Your task to perform on an android device: Search for Mexican restaurants on Maps Image 0: 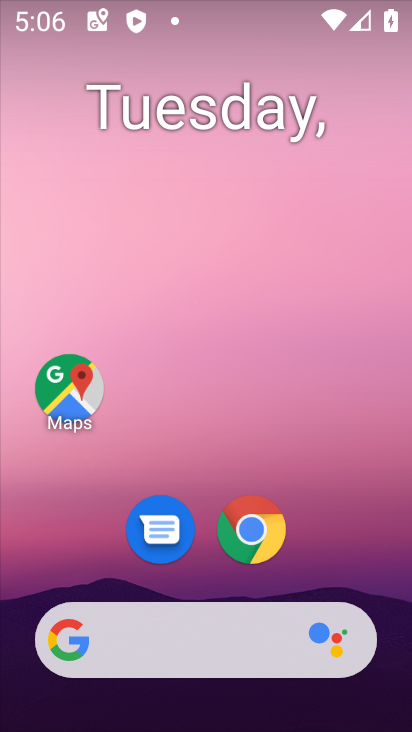
Step 0: click (262, 518)
Your task to perform on an android device: Search for Mexican restaurants on Maps Image 1: 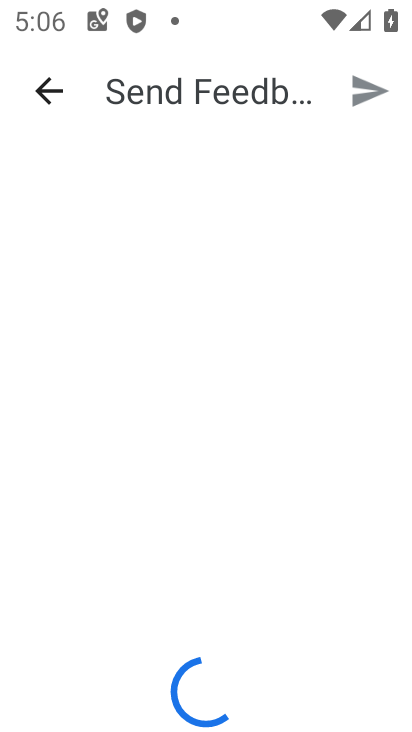
Step 1: press home button
Your task to perform on an android device: Search for Mexican restaurants on Maps Image 2: 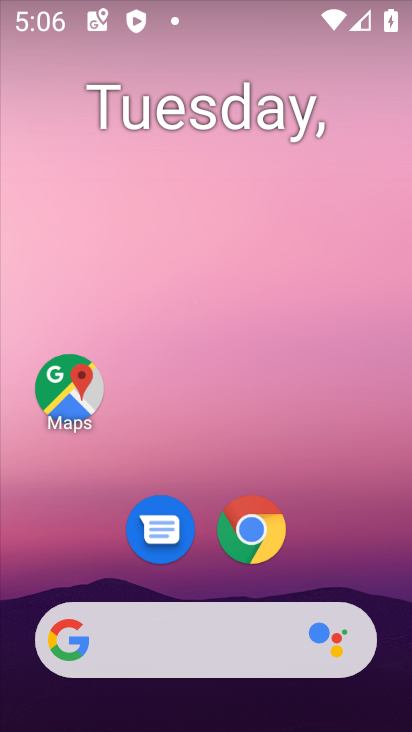
Step 2: drag from (405, 346) to (409, 124)
Your task to perform on an android device: Search for Mexican restaurants on Maps Image 3: 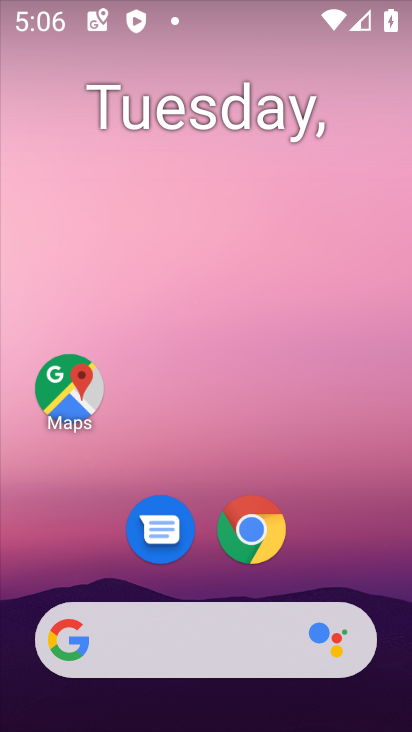
Step 3: drag from (386, 599) to (375, 116)
Your task to perform on an android device: Search for Mexican restaurants on Maps Image 4: 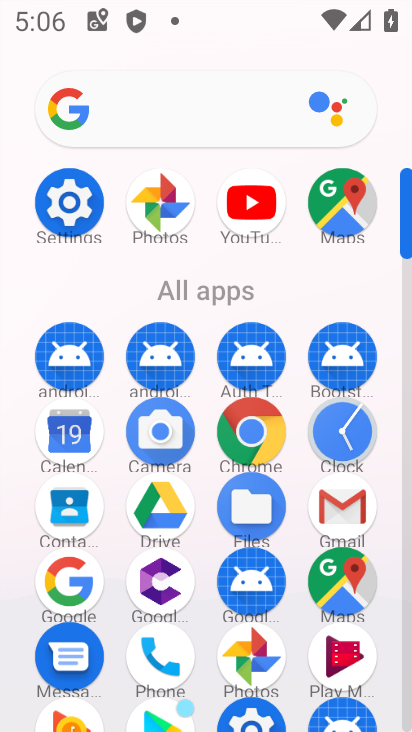
Step 4: click (346, 578)
Your task to perform on an android device: Search for Mexican restaurants on Maps Image 5: 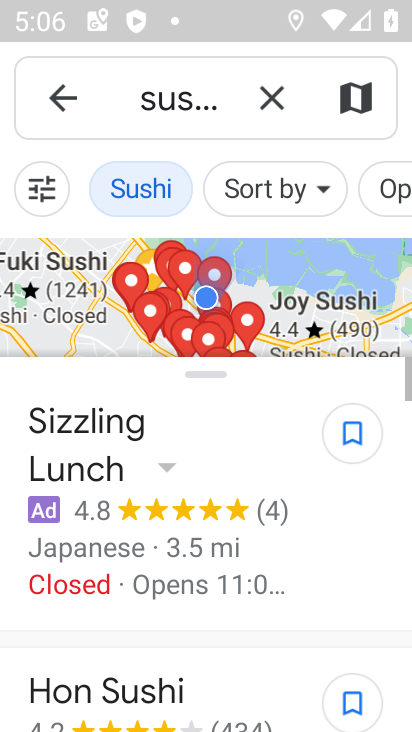
Step 5: click (268, 88)
Your task to perform on an android device: Search for Mexican restaurants on Maps Image 6: 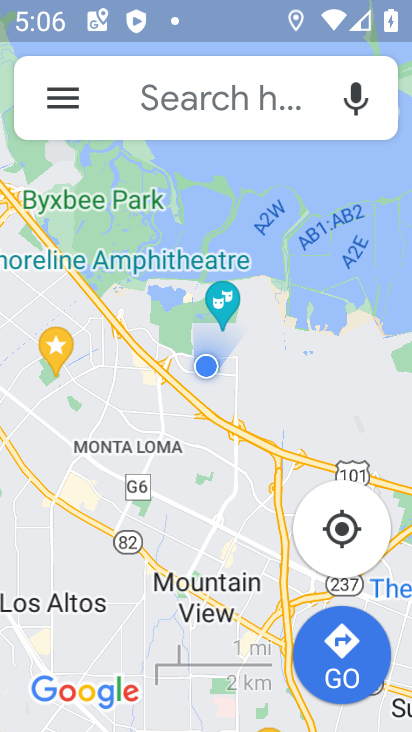
Step 6: click (144, 103)
Your task to perform on an android device: Search for Mexican restaurants on Maps Image 7: 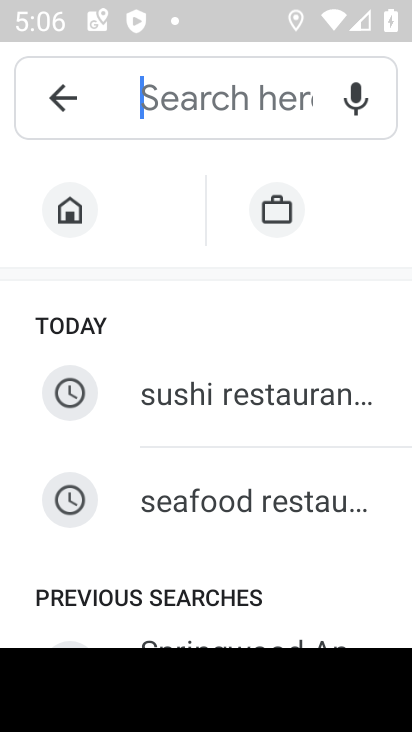
Step 7: type "Mexican restaurants"
Your task to perform on an android device: Search for Mexican restaurants on Maps Image 8: 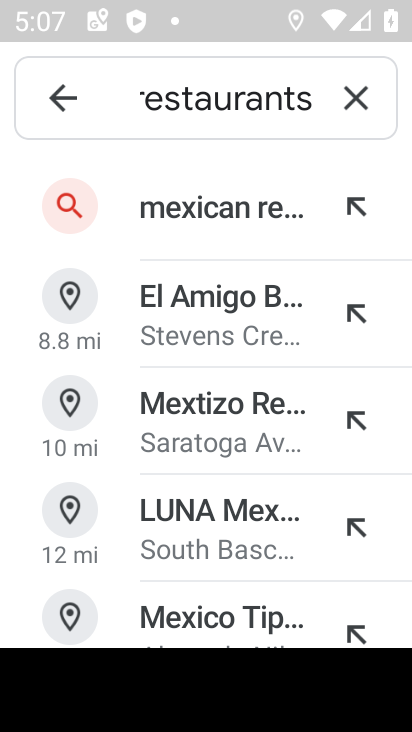
Step 8: click (193, 201)
Your task to perform on an android device: Search for Mexican restaurants on Maps Image 9: 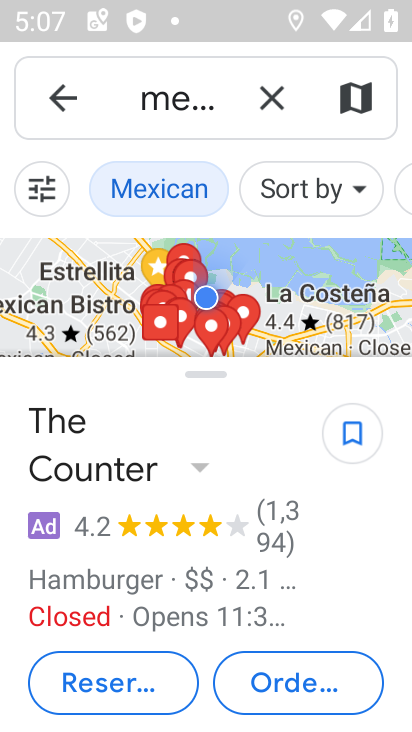
Step 9: task complete